Your task to perform on an android device: Open notification settings Image 0: 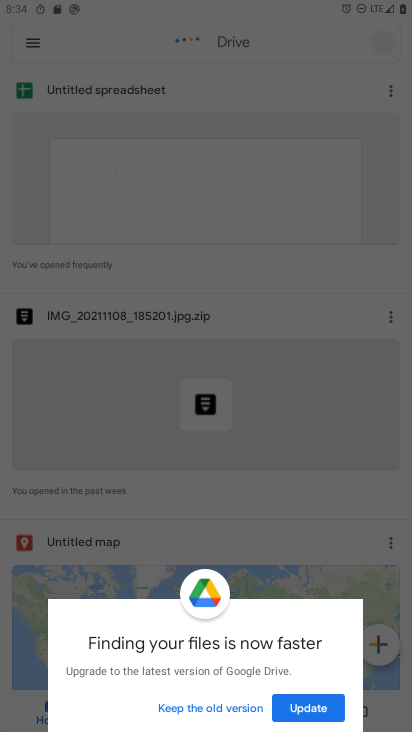
Step 0: press home button
Your task to perform on an android device: Open notification settings Image 1: 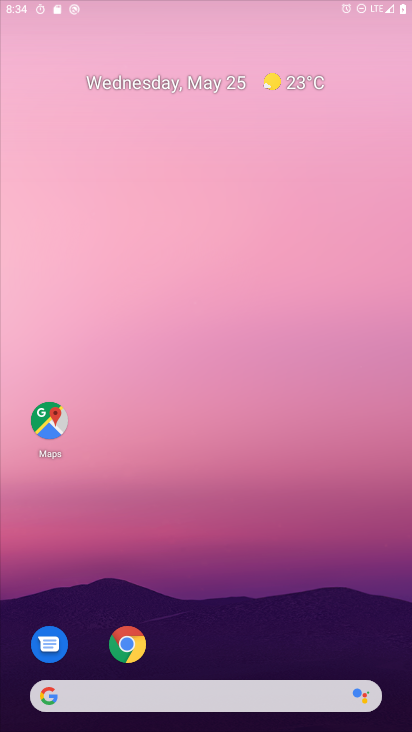
Step 1: drag from (349, 609) to (235, 12)
Your task to perform on an android device: Open notification settings Image 2: 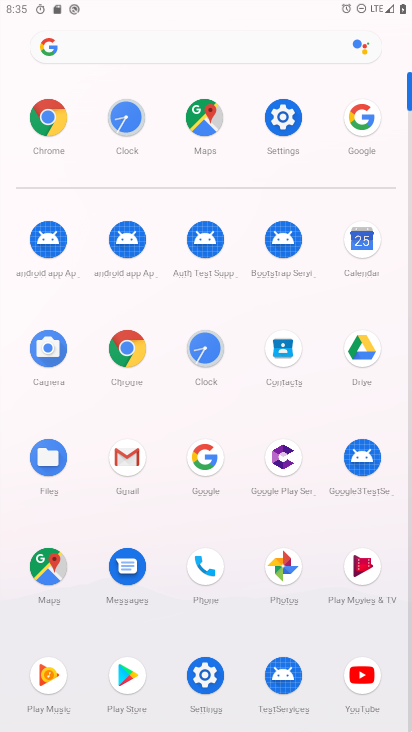
Step 2: click (220, 675)
Your task to perform on an android device: Open notification settings Image 3: 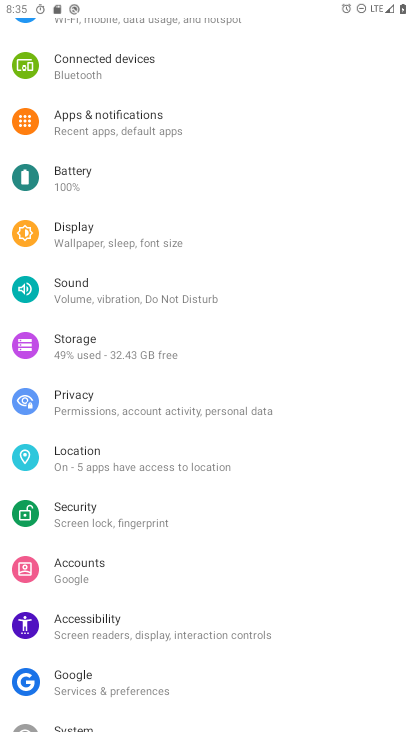
Step 3: click (144, 128)
Your task to perform on an android device: Open notification settings Image 4: 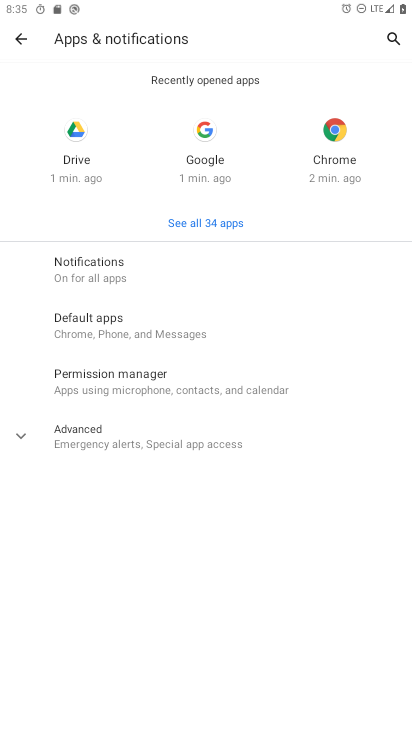
Step 4: click (95, 278)
Your task to perform on an android device: Open notification settings Image 5: 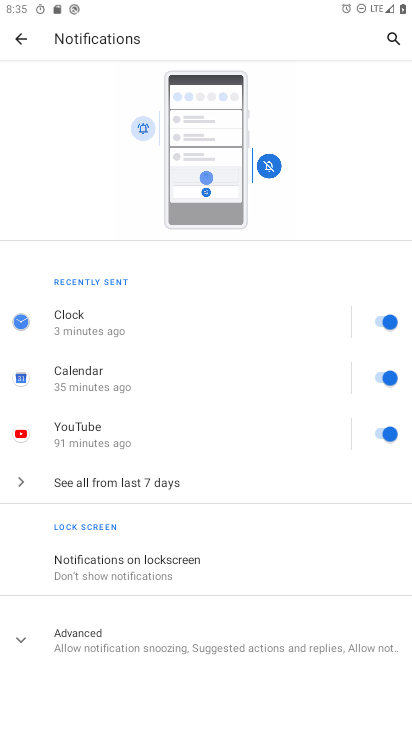
Step 5: task complete